Your task to perform on an android device: Open Yahoo.com Image 0: 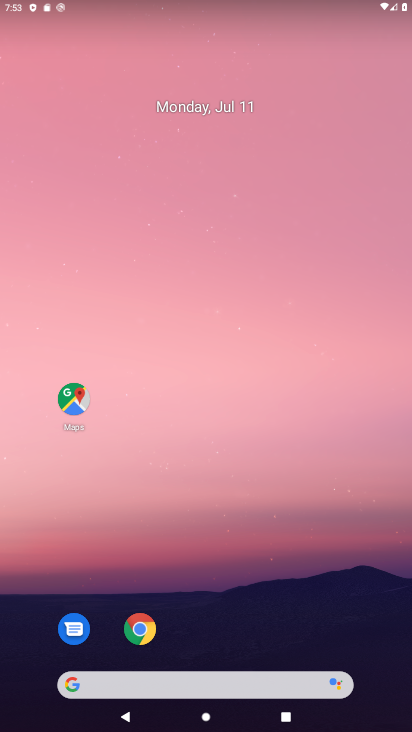
Step 0: click (141, 627)
Your task to perform on an android device: Open Yahoo.com Image 1: 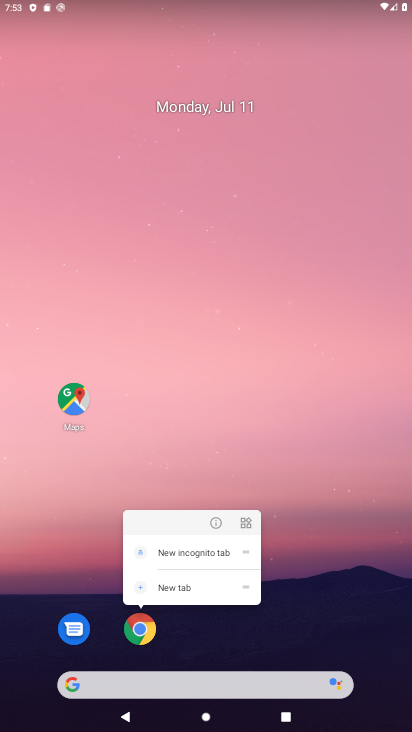
Step 1: click (141, 627)
Your task to perform on an android device: Open Yahoo.com Image 2: 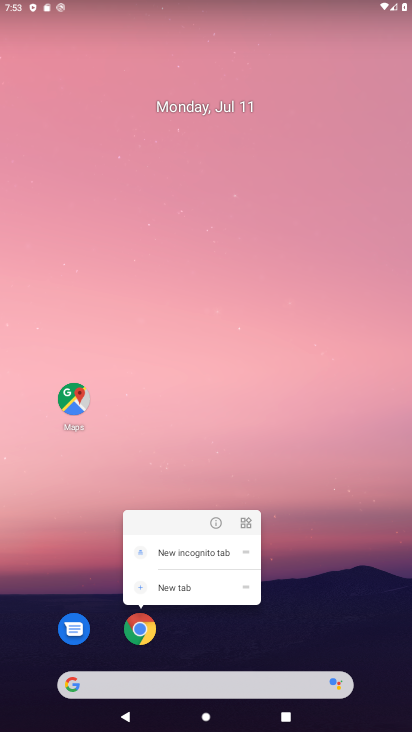
Step 2: click (144, 634)
Your task to perform on an android device: Open Yahoo.com Image 3: 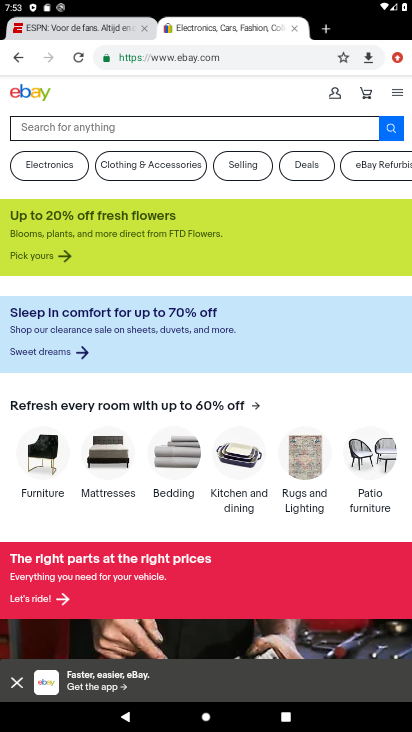
Step 3: click (327, 29)
Your task to perform on an android device: Open Yahoo.com Image 4: 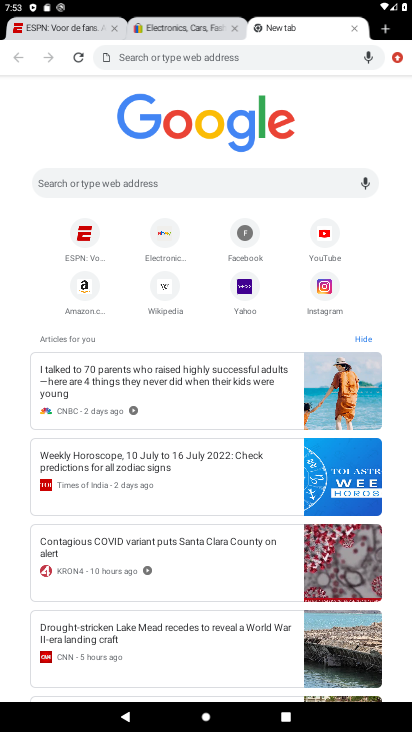
Step 4: click (248, 284)
Your task to perform on an android device: Open Yahoo.com Image 5: 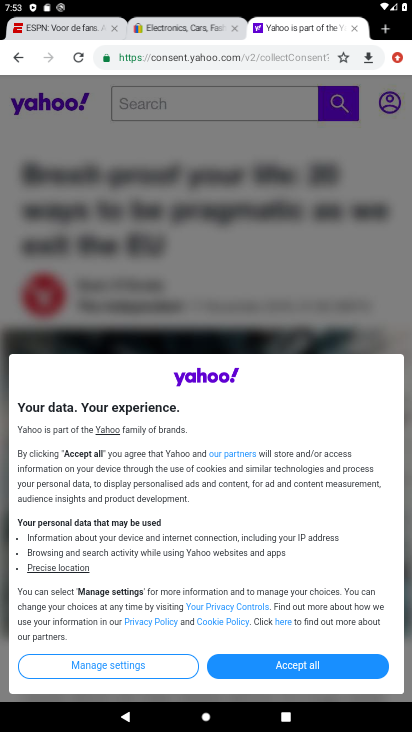
Step 5: click (331, 664)
Your task to perform on an android device: Open Yahoo.com Image 6: 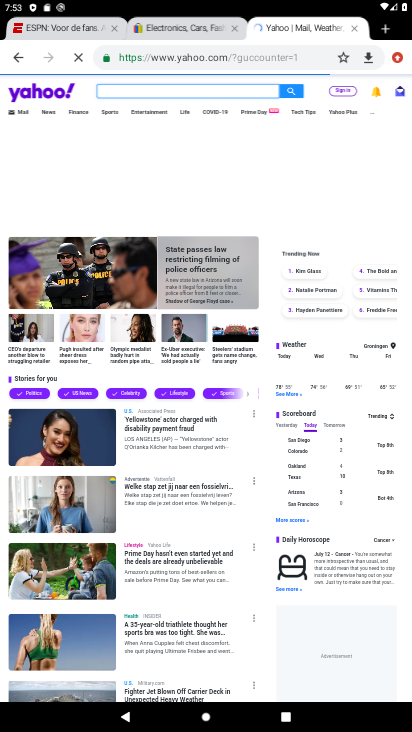
Step 6: task complete